Your task to perform on an android device: add a contact in the contacts app Image 0: 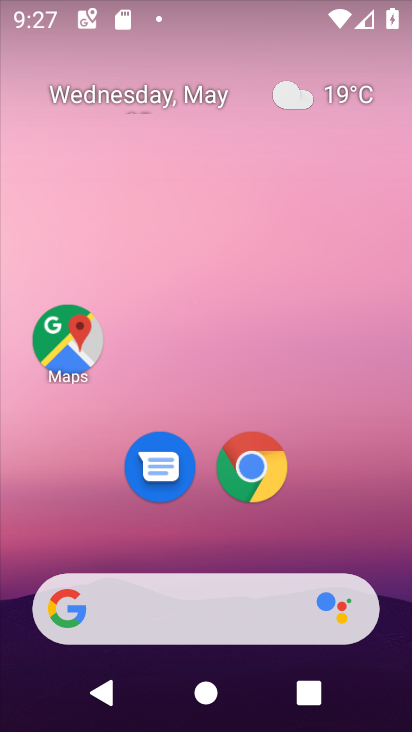
Step 0: drag from (318, 503) to (304, 123)
Your task to perform on an android device: add a contact in the contacts app Image 1: 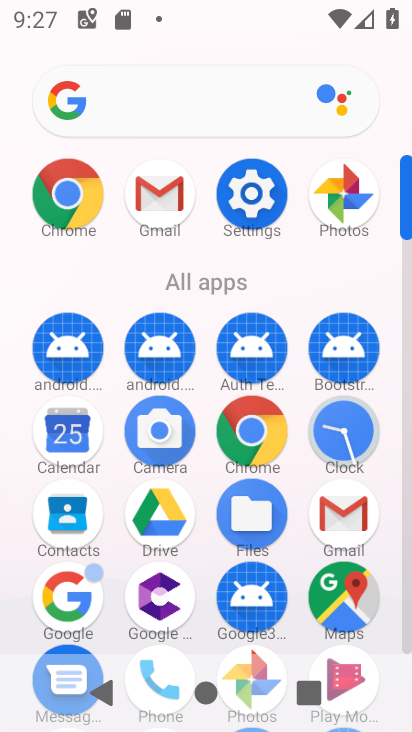
Step 1: click (81, 504)
Your task to perform on an android device: add a contact in the contacts app Image 2: 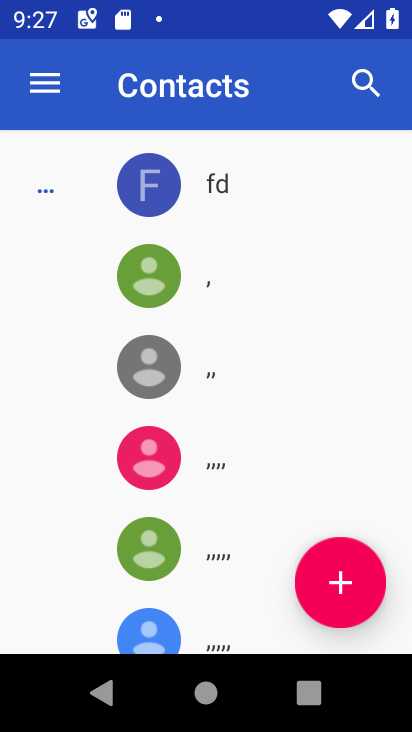
Step 2: click (338, 581)
Your task to perform on an android device: add a contact in the contacts app Image 3: 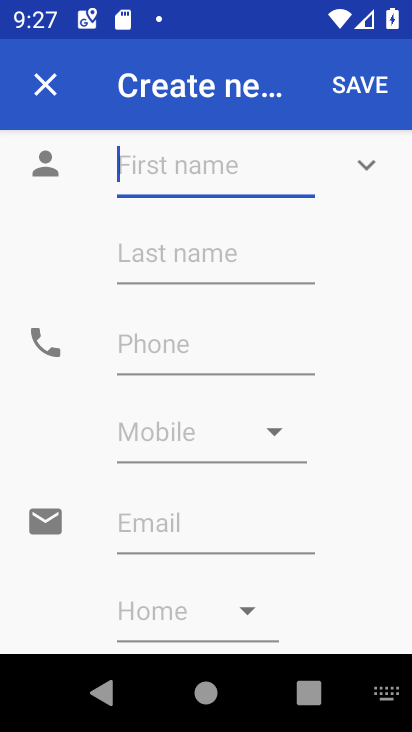
Step 3: type "mario"
Your task to perform on an android device: add a contact in the contacts app Image 4: 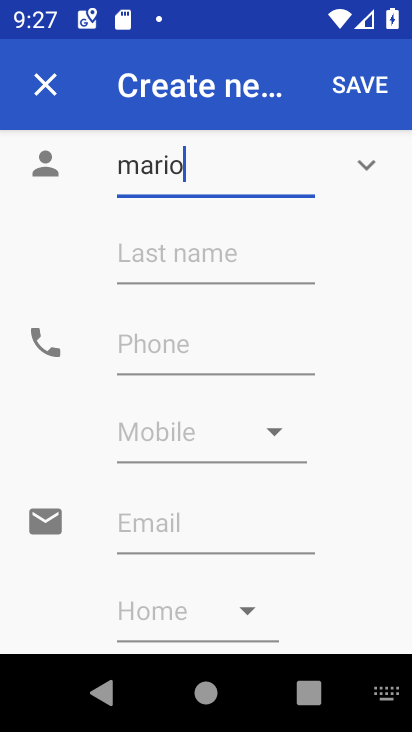
Step 4: click (374, 74)
Your task to perform on an android device: add a contact in the contacts app Image 5: 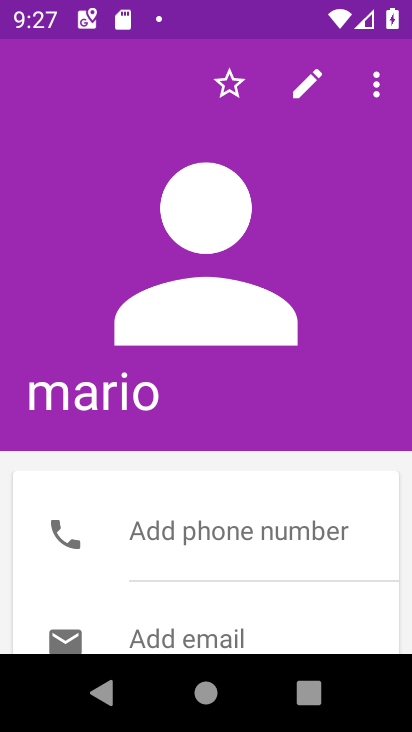
Step 5: task complete